Your task to perform on an android device: turn off data saver in the chrome app Image 0: 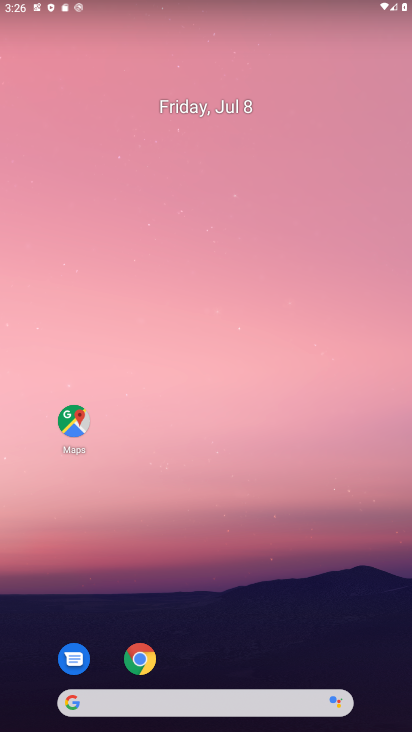
Step 0: click (146, 656)
Your task to perform on an android device: turn off data saver in the chrome app Image 1: 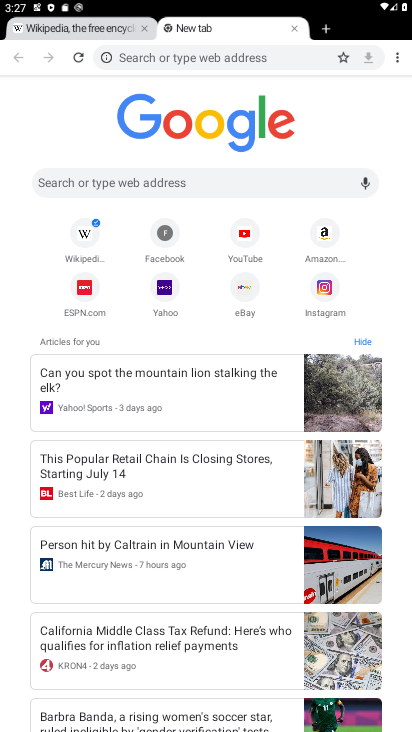
Step 1: click (403, 59)
Your task to perform on an android device: turn off data saver in the chrome app Image 2: 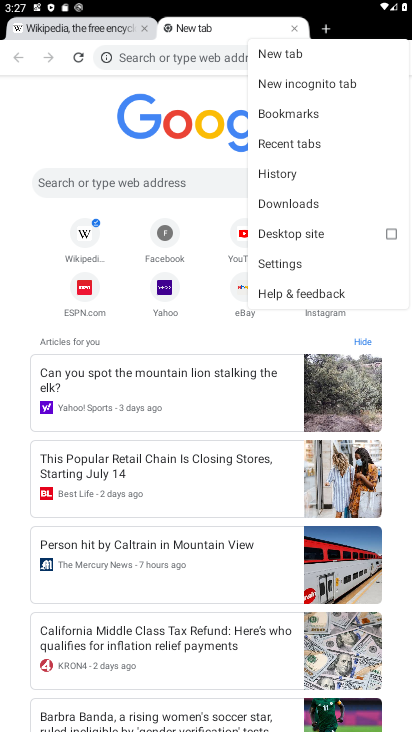
Step 2: click (287, 264)
Your task to perform on an android device: turn off data saver in the chrome app Image 3: 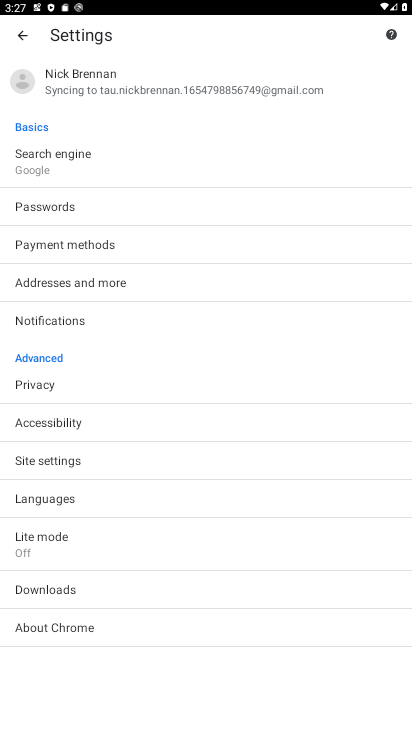
Step 3: click (103, 532)
Your task to perform on an android device: turn off data saver in the chrome app Image 4: 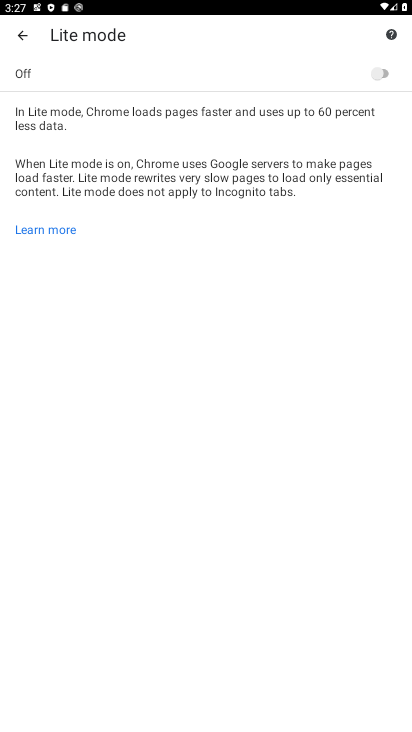
Step 4: task complete